Your task to perform on an android device: Open Google Chrome and click the shortcut for Amazon.com Image 0: 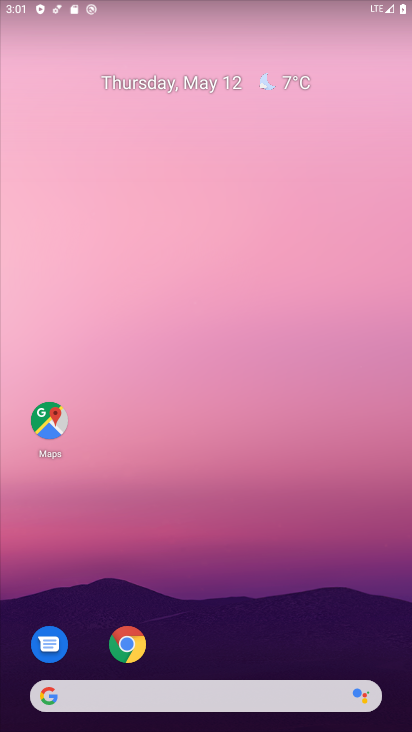
Step 0: drag from (238, 299) to (188, 132)
Your task to perform on an android device: Open Google Chrome and click the shortcut for Amazon.com Image 1: 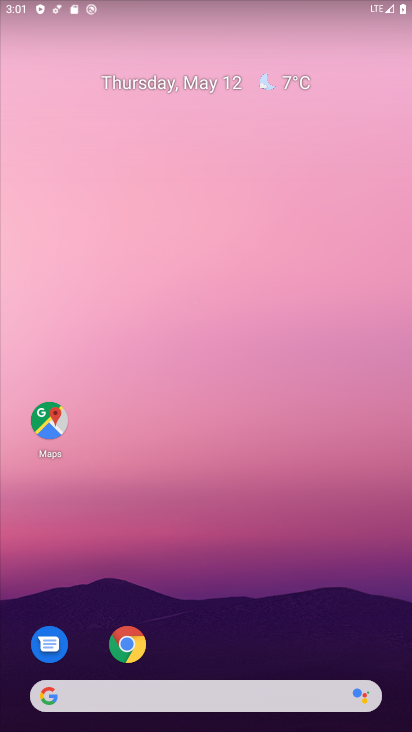
Step 1: drag from (188, 524) to (177, 44)
Your task to perform on an android device: Open Google Chrome and click the shortcut for Amazon.com Image 2: 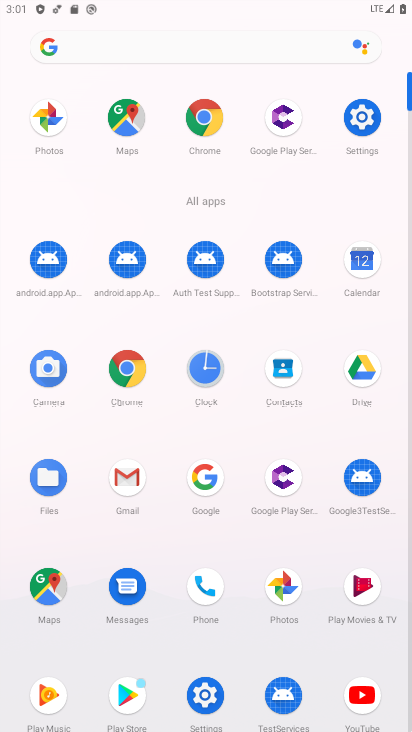
Step 2: click (201, 113)
Your task to perform on an android device: Open Google Chrome and click the shortcut for Amazon.com Image 3: 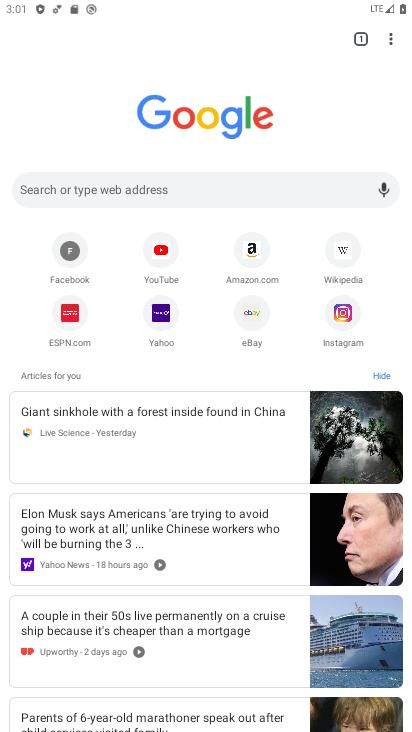
Step 3: click (247, 266)
Your task to perform on an android device: Open Google Chrome and click the shortcut for Amazon.com Image 4: 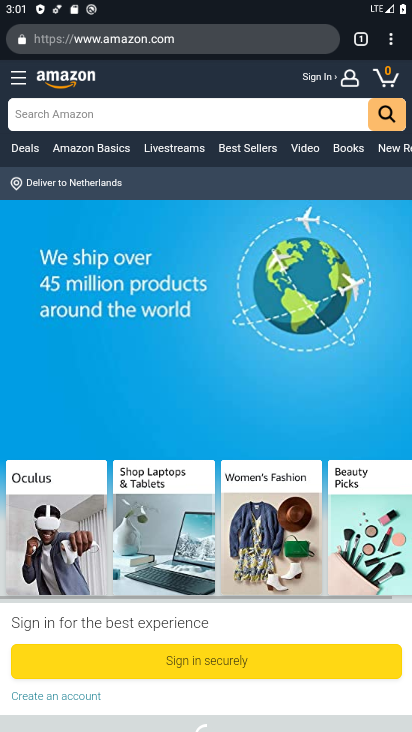
Step 4: drag from (396, 50) to (271, 405)
Your task to perform on an android device: Open Google Chrome and click the shortcut for Amazon.com Image 5: 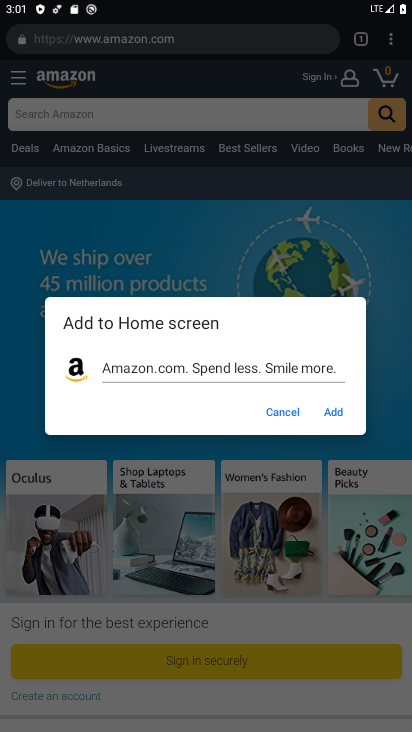
Step 5: click (332, 409)
Your task to perform on an android device: Open Google Chrome and click the shortcut for Amazon.com Image 6: 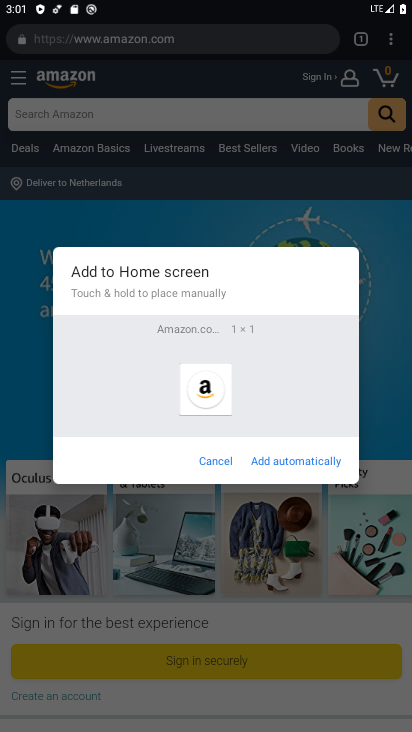
Step 6: click (303, 457)
Your task to perform on an android device: Open Google Chrome and click the shortcut for Amazon.com Image 7: 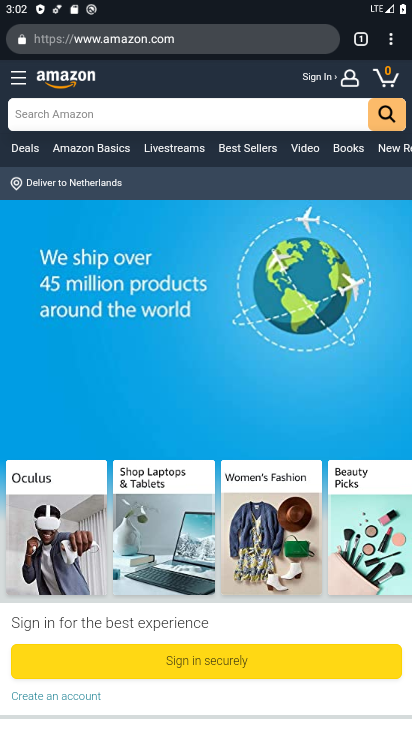
Step 7: task complete